Your task to perform on an android device: see sites visited before in the chrome app Image 0: 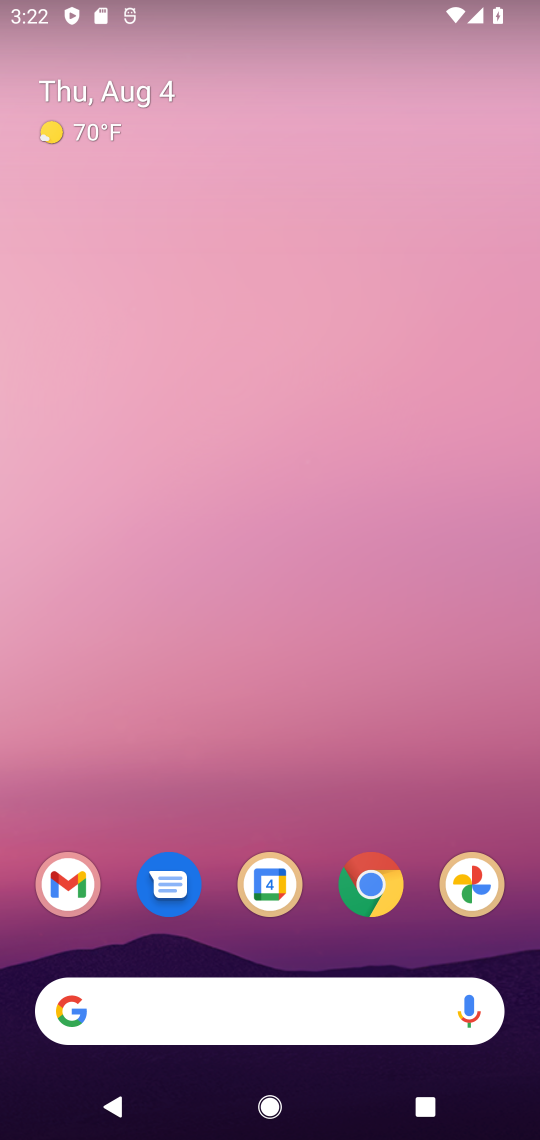
Step 0: drag from (176, 946) to (193, 445)
Your task to perform on an android device: see sites visited before in the chrome app Image 1: 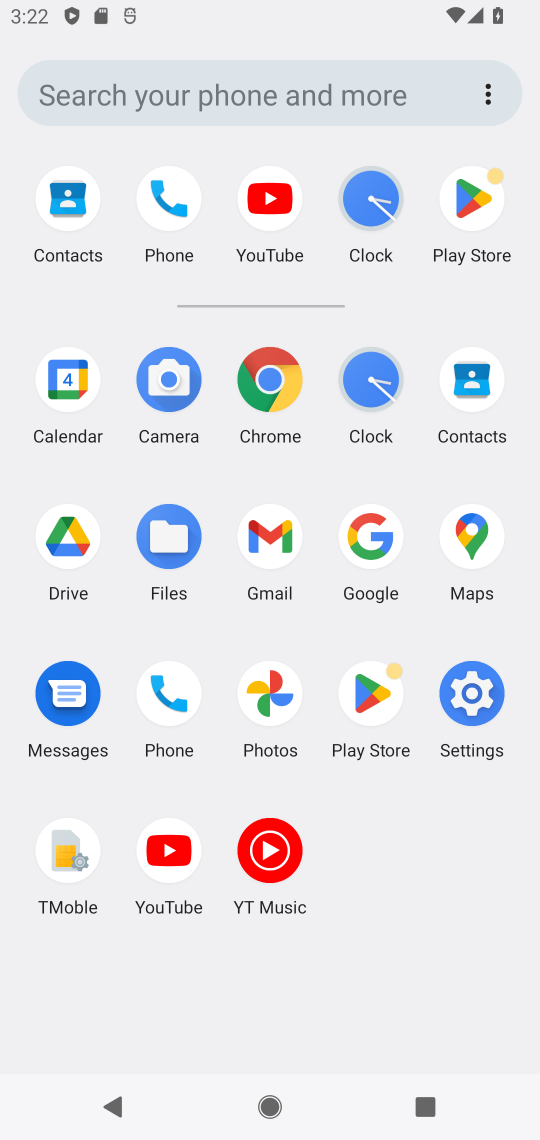
Step 1: click (251, 378)
Your task to perform on an android device: see sites visited before in the chrome app Image 2: 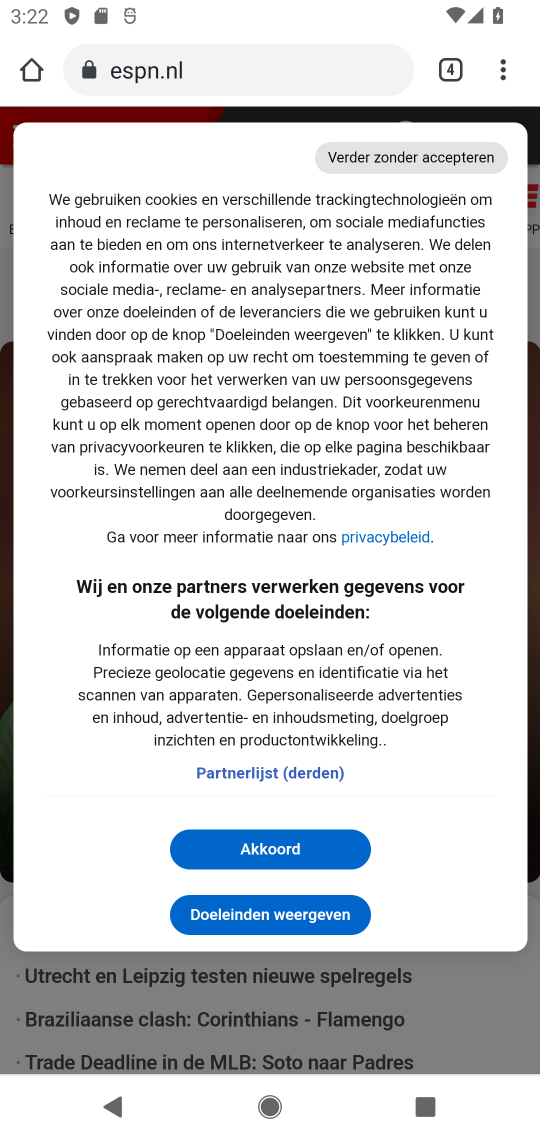
Step 2: click (501, 70)
Your task to perform on an android device: see sites visited before in the chrome app Image 3: 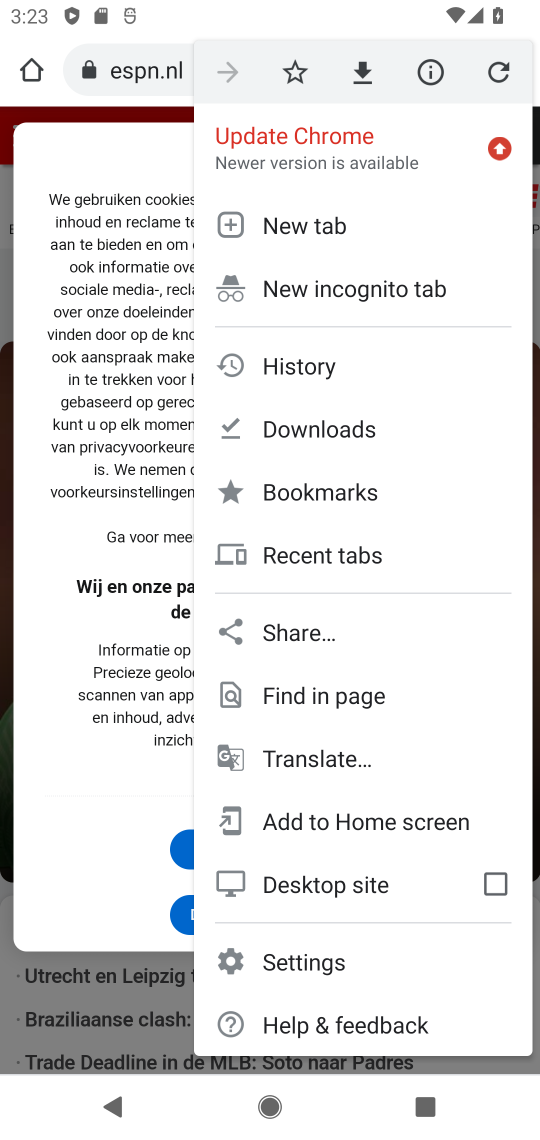
Step 3: click (334, 373)
Your task to perform on an android device: see sites visited before in the chrome app Image 4: 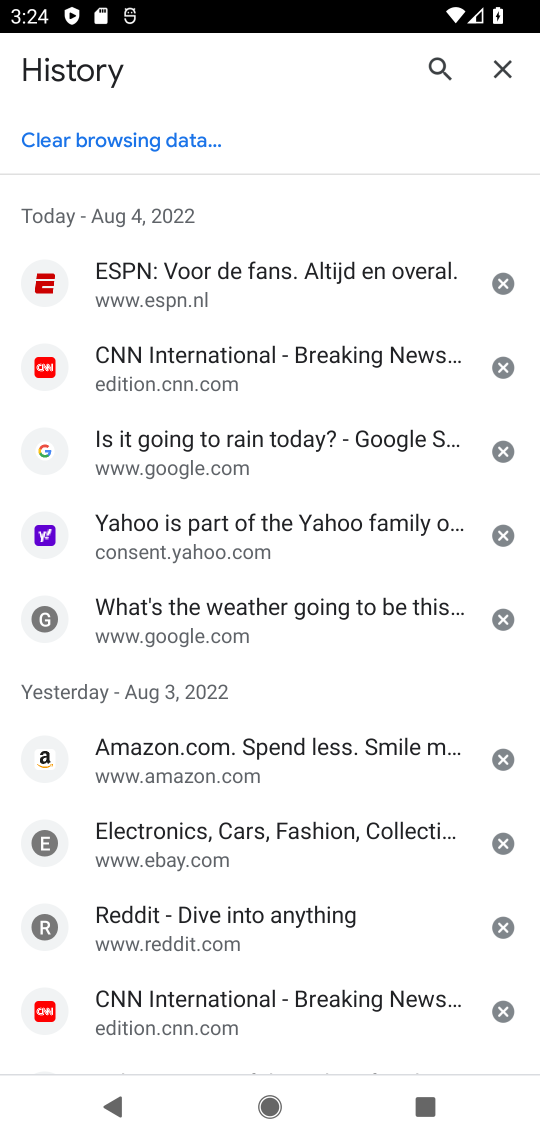
Step 4: task complete